Your task to perform on an android device: Turn on the flashlight Image 0: 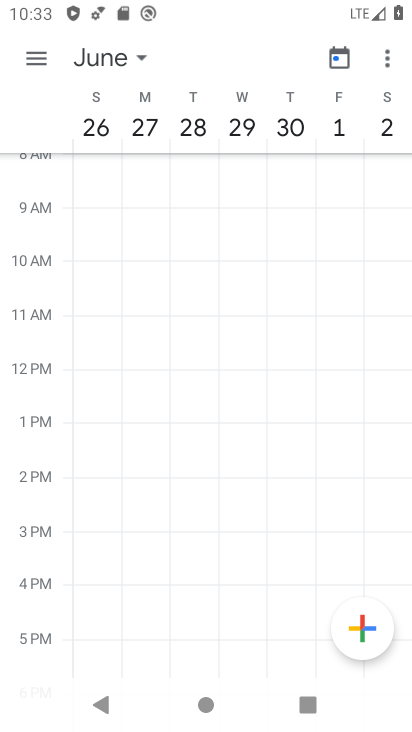
Step 0: press home button
Your task to perform on an android device: Turn on the flashlight Image 1: 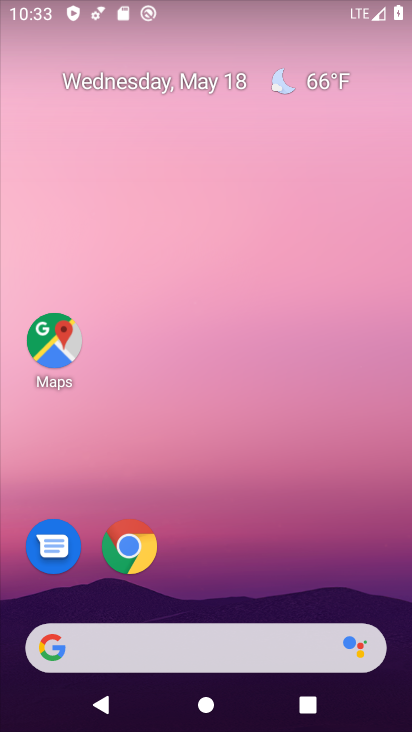
Step 1: drag from (238, 724) to (218, 210)
Your task to perform on an android device: Turn on the flashlight Image 2: 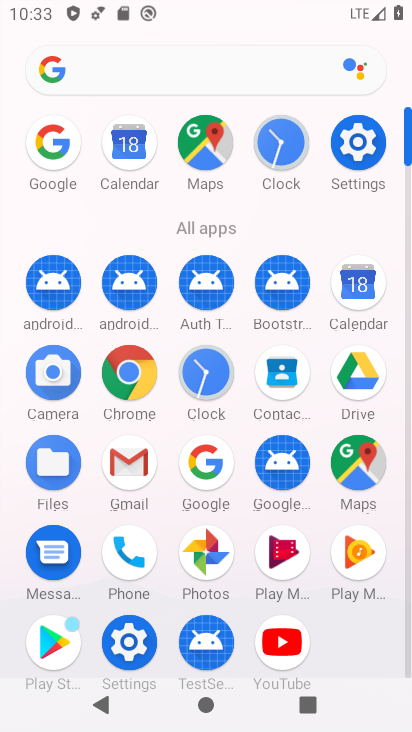
Step 2: click (357, 145)
Your task to perform on an android device: Turn on the flashlight Image 3: 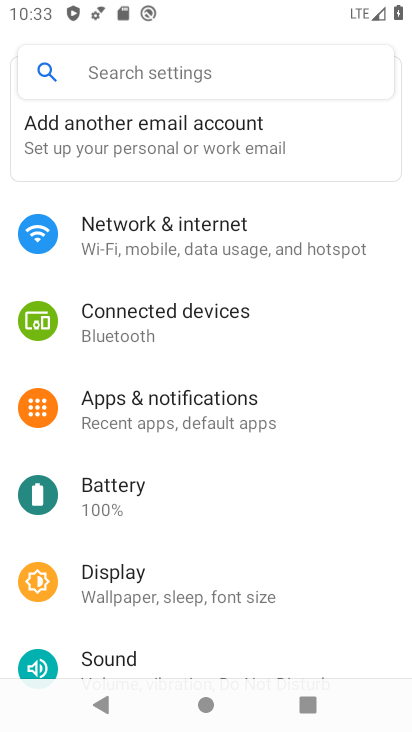
Step 3: task complete